Your task to perform on an android device: read, delete, or share a saved page in the chrome app Image 0: 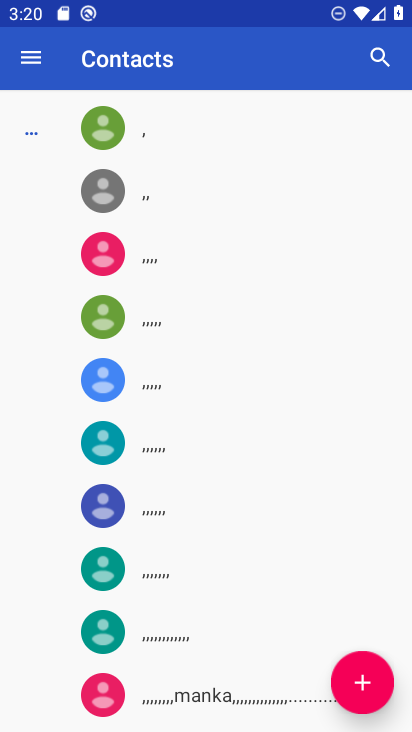
Step 0: press home button
Your task to perform on an android device: read, delete, or share a saved page in the chrome app Image 1: 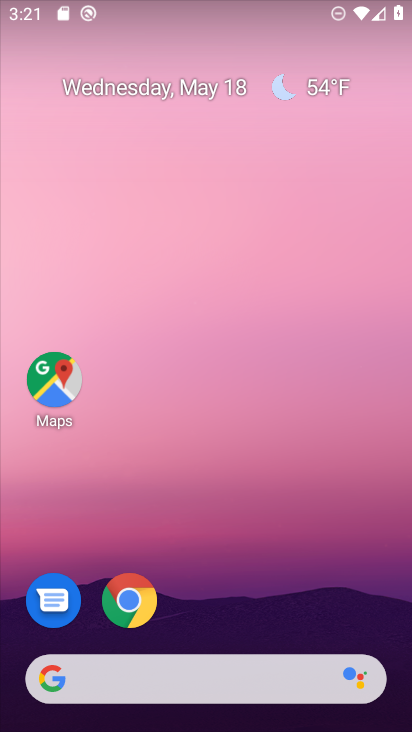
Step 1: click (133, 584)
Your task to perform on an android device: read, delete, or share a saved page in the chrome app Image 2: 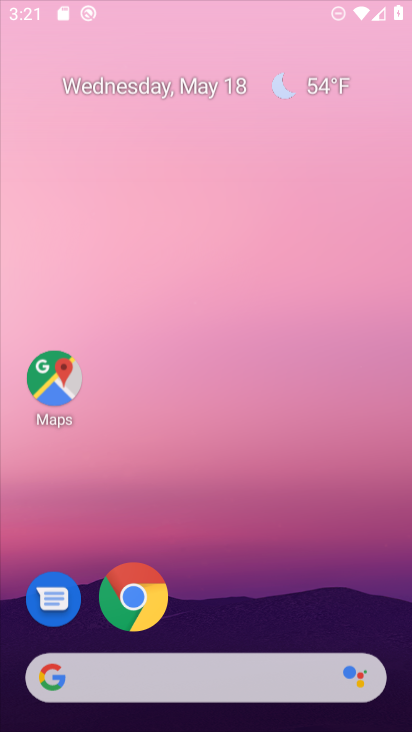
Step 2: click (141, 603)
Your task to perform on an android device: read, delete, or share a saved page in the chrome app Image 3: 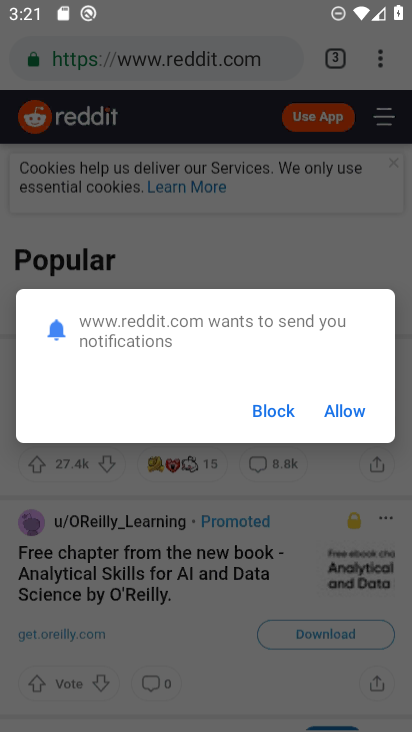
Step 3: click (254, 434)
Your task to perform on an android device: read, delete, or share a saved page in the chrome app Image 4: 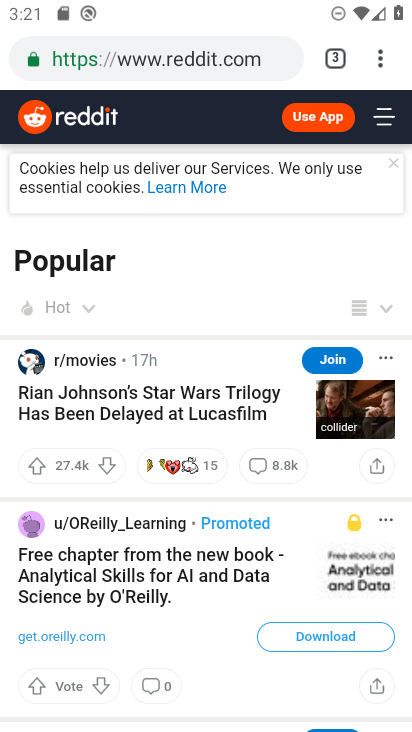
Step 4: click (381, 57)
Your task to perform on an android device: read, delete, or share a saved page in the chrome app Image 5: 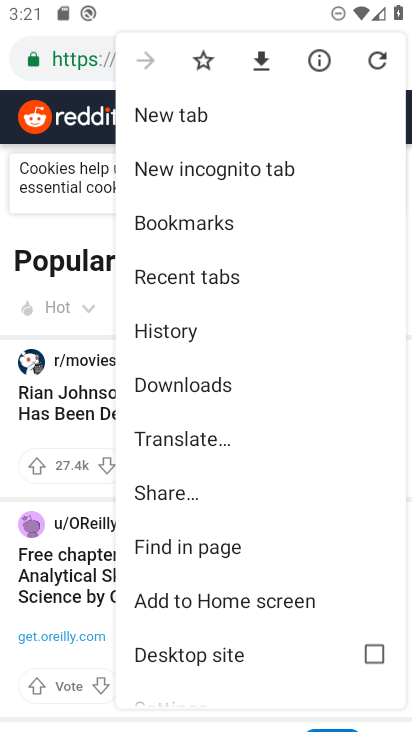
Step 5: click (208, 384)
Your task to perform on an android device: read, delete, or share a saved page in the chrome app Image 6: 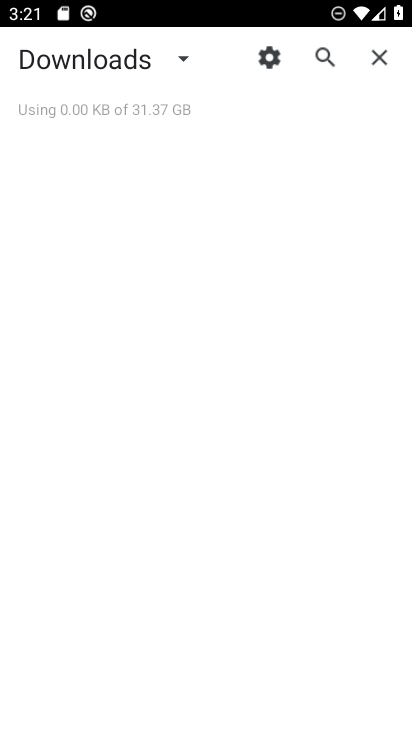
Step 6: task complete